Your task to perform on an android device: open app "Adobe Express: Graphic Design" (install if not already installed) Image 0: 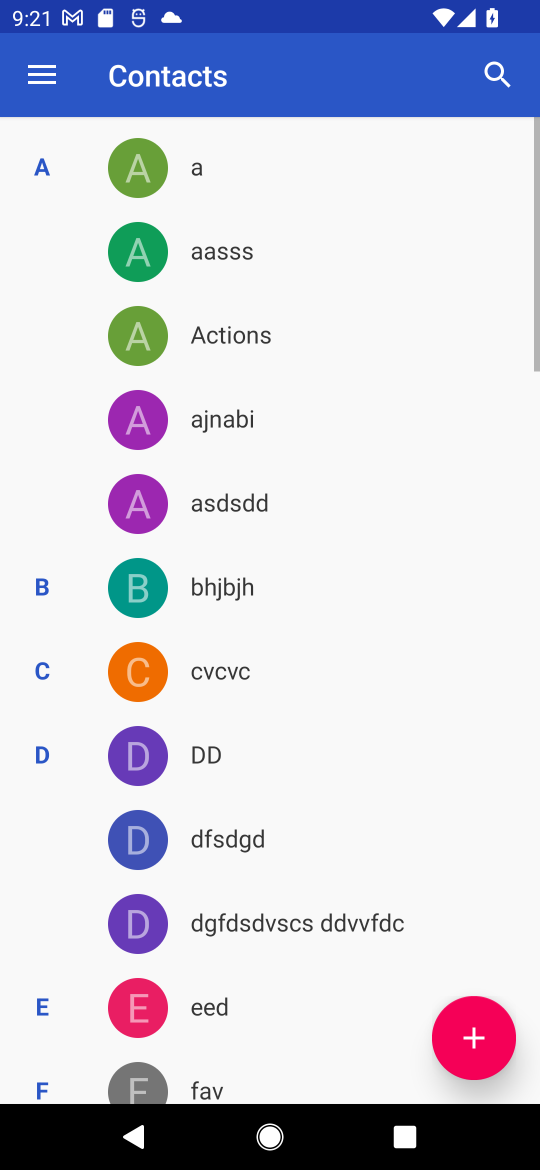
Step 0: drag from (427, 956) to (469, 295)
Your task to perform on an android device: open app "Adobe Express: Graphic Design" (install if not already installed) Image 1: 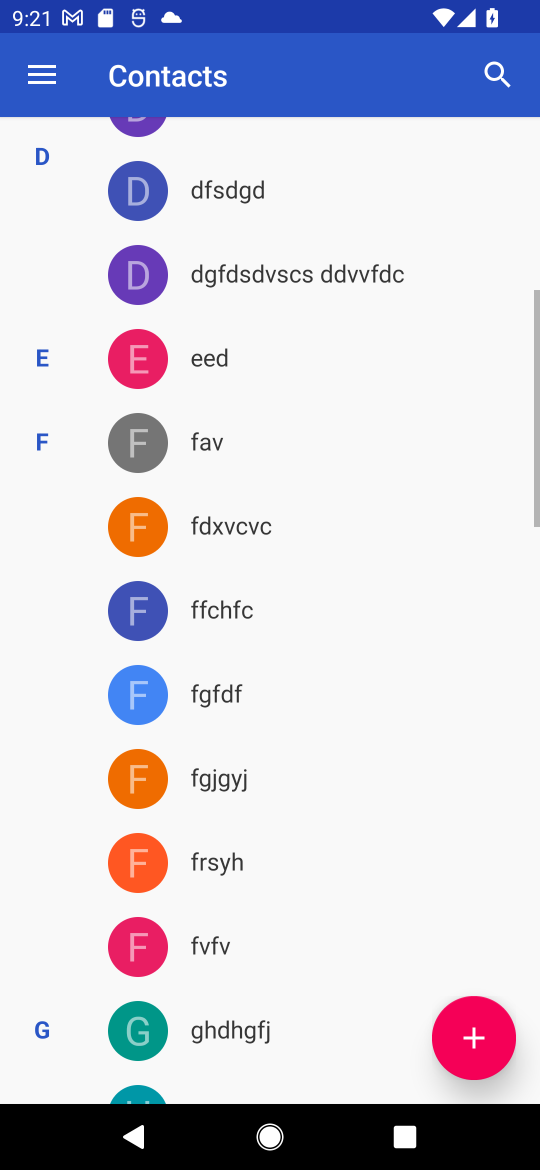
Step 1: press home button
Your task to perform on an android device: open app "Adobe Express: Graphic Design" (install if not already installed) Image 2: 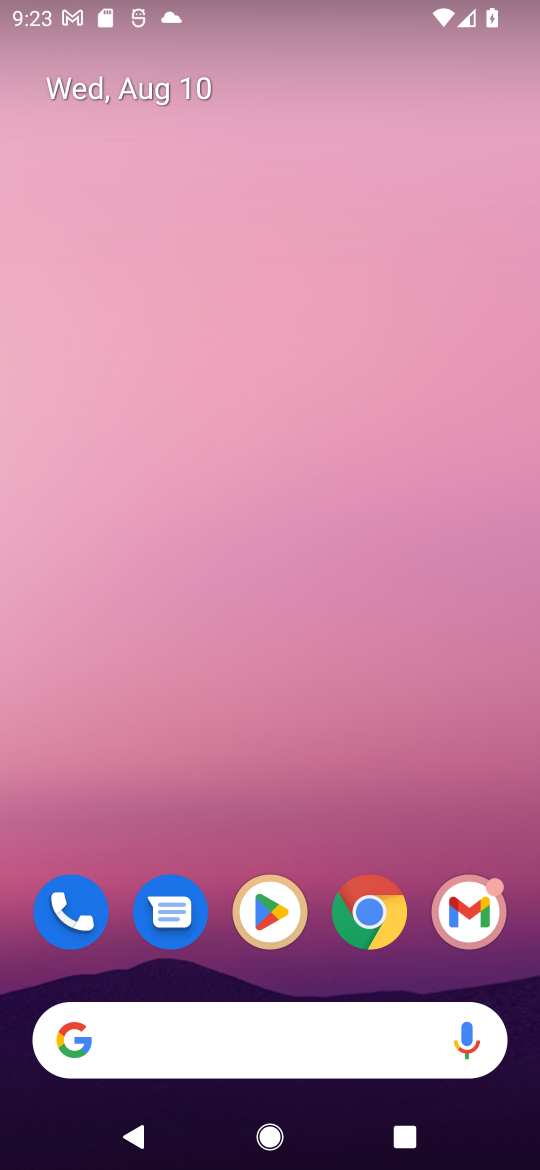
Step 2: drag from (503, 976) to (290, 36)
Your task to perform on an android device: open app "Adobe Express: Graphic Design" (install if not already installed) Image 3: 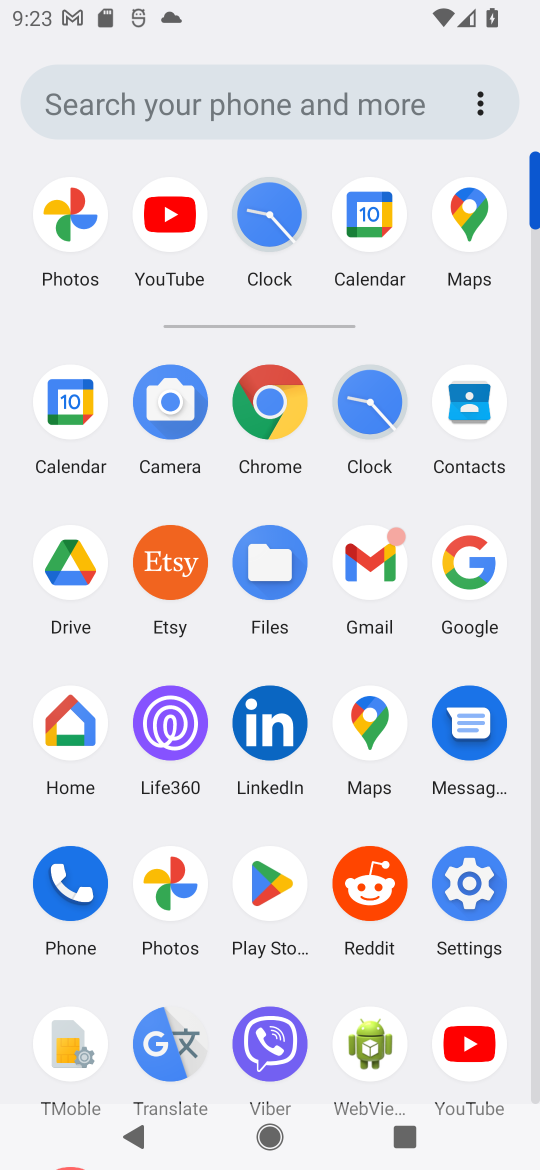
Step 3: click (259, 873)
Your task to perform on an android device: open app "Adobe Express: Graphic Design" (install if not already installed) Image 4: 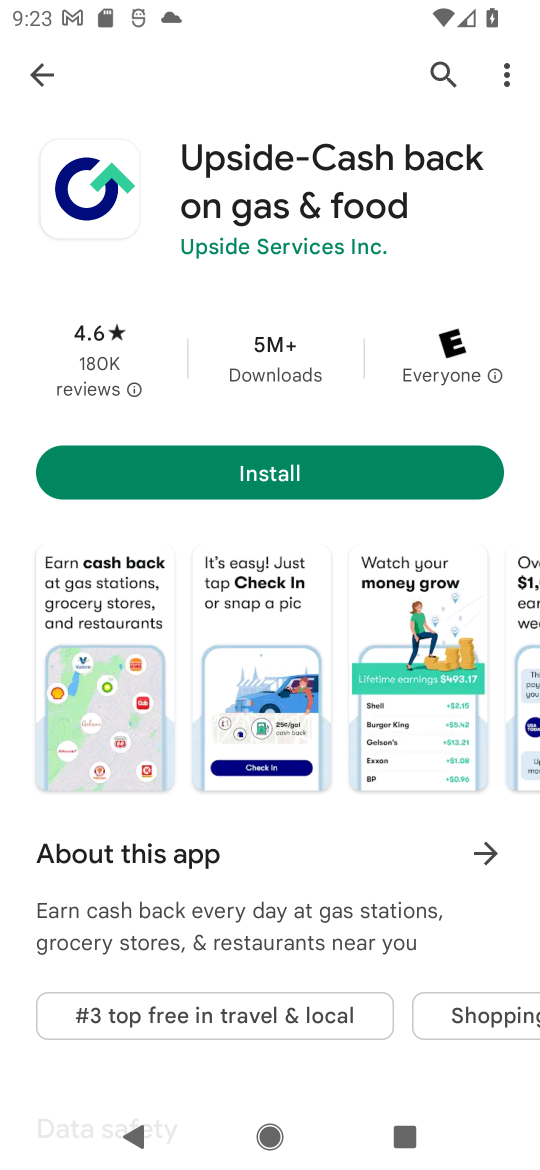
Step 4: press back button
Your task to perform on an android device: open app "Adobe Express: Graphic Design" (install if not already installed) Image 5: 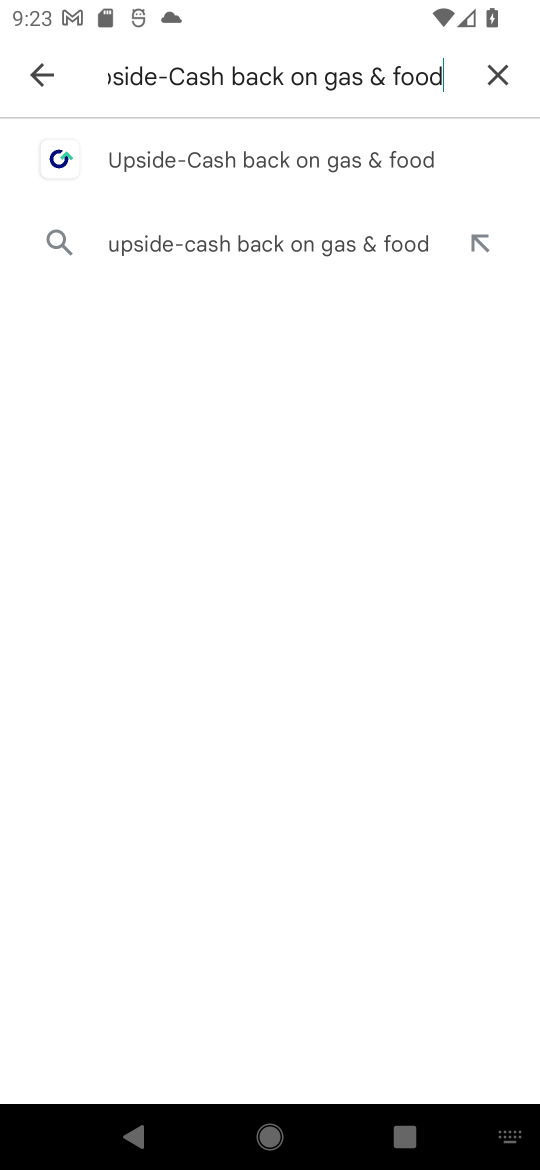
Step 5: click (500, 80)
Your task to perform on an android device: open app "Adobe Express: Graphic Design" (install if not already installed) Image 6: 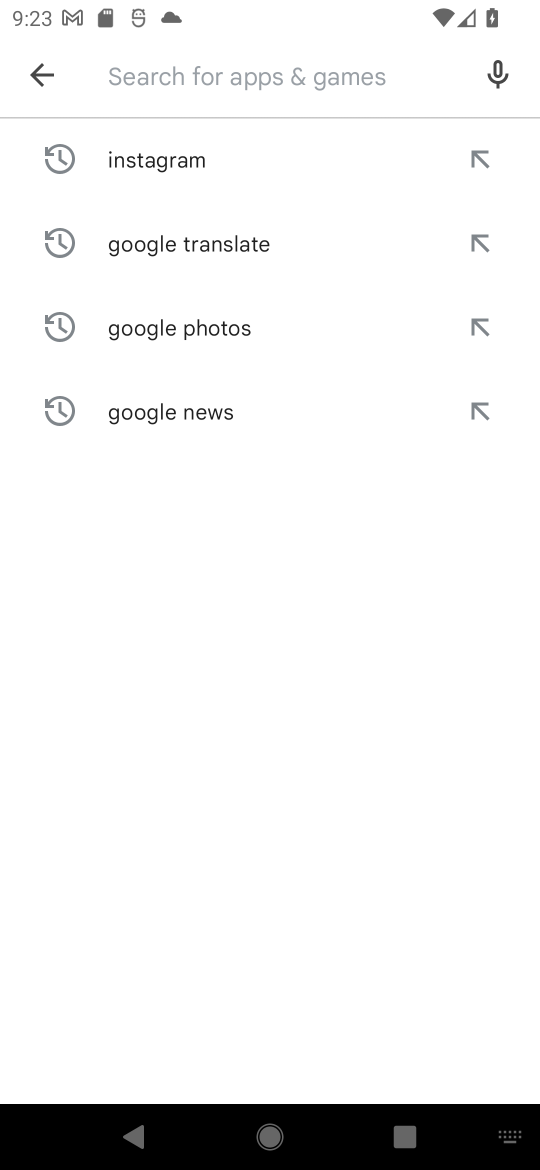
Step 6: click (178, 71)
Your task to perform on an android device: open app "Adobe Express: Graphic Design" (install if not already installed) Image 7: 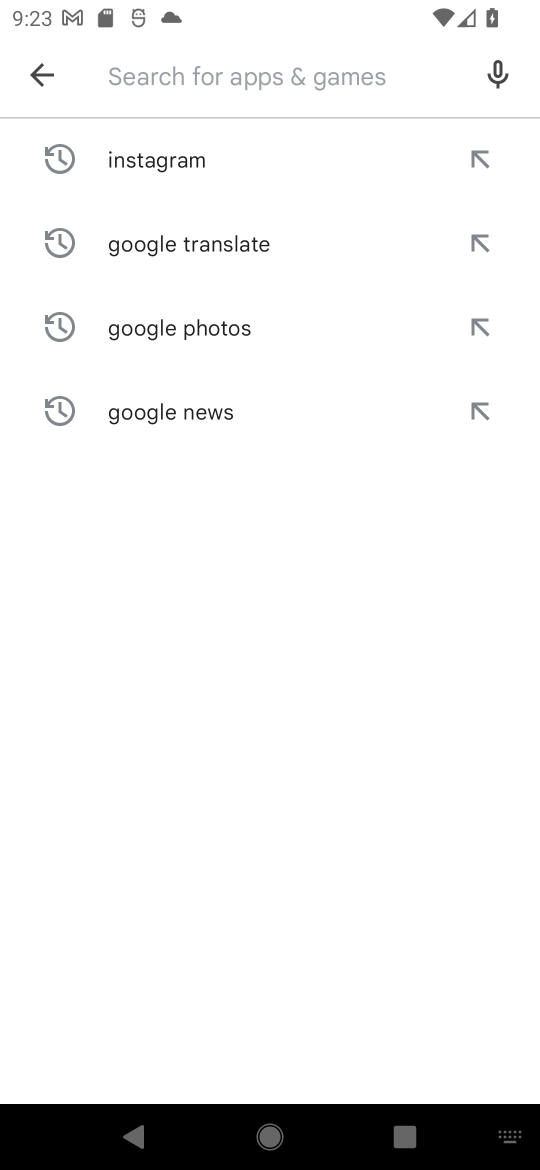
Step 7: type "Adobe Express: Graphic Design"
Your task to perform on an android device: open app "Adobe Express: Graphic Design" (install if not already installed) Image 8: 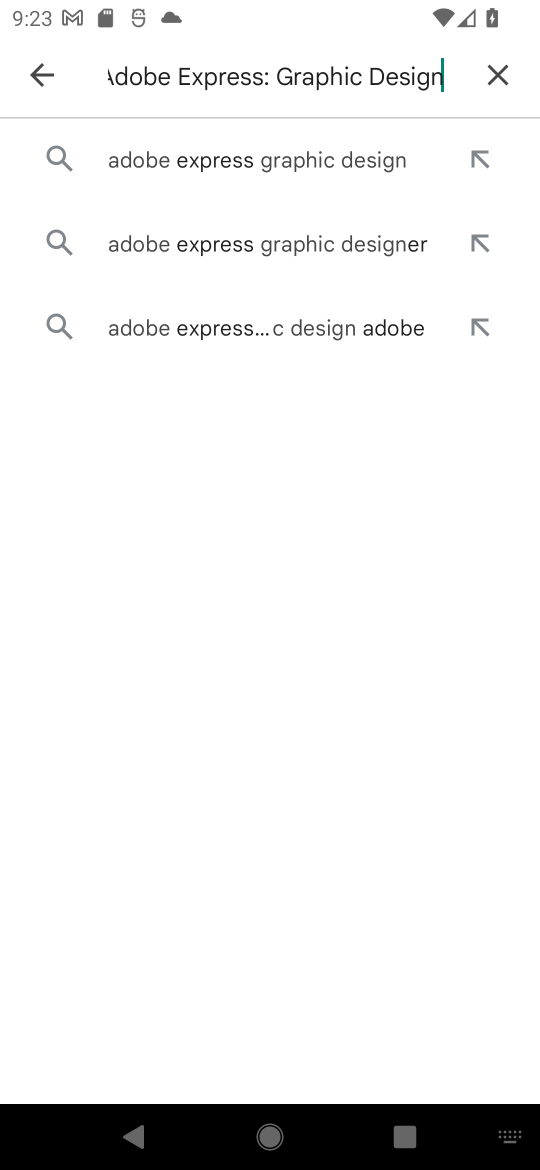
Step 8: click (258, 158)
Your task to perform on an android device: open app "Adobe Express: Graphic Design" (install if not already installed) Image 9: 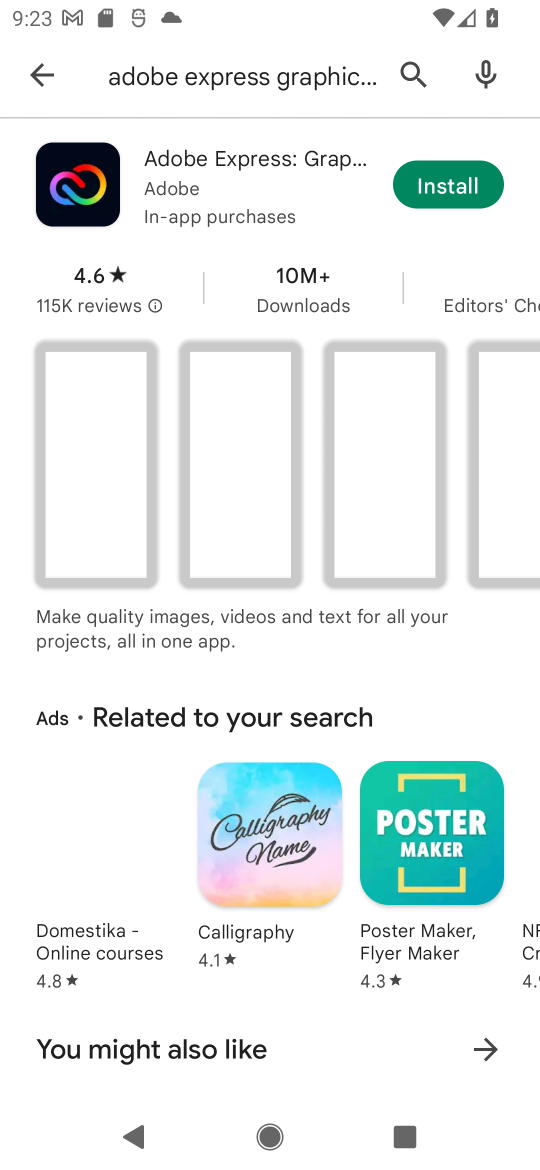
Step 9: task complete